Your task to perform on an android device: turn off wifi Image 0: 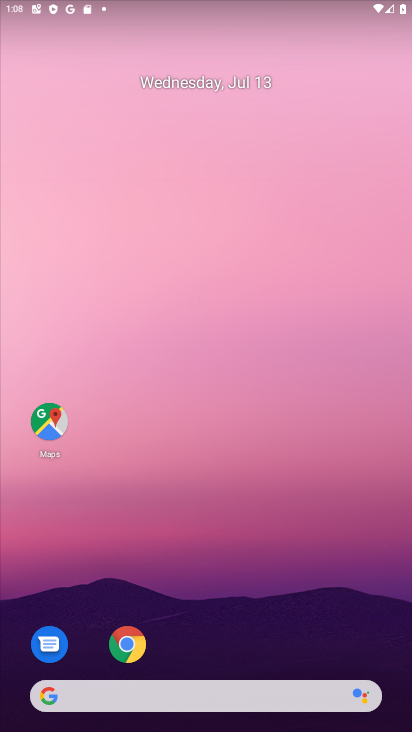
Step 0: drag from (315, 624) to (250, 123)
Your task to perform on an android device: turn off wifi Image 1: 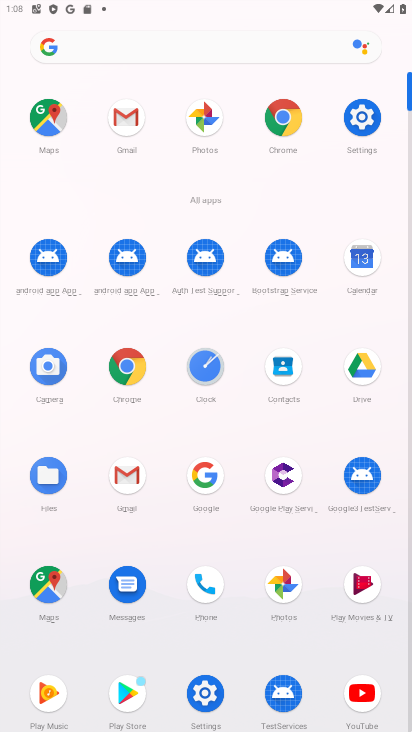
Step 1: click (357, 124)
Your task to perform on an android device: turn off wifi Image 2: 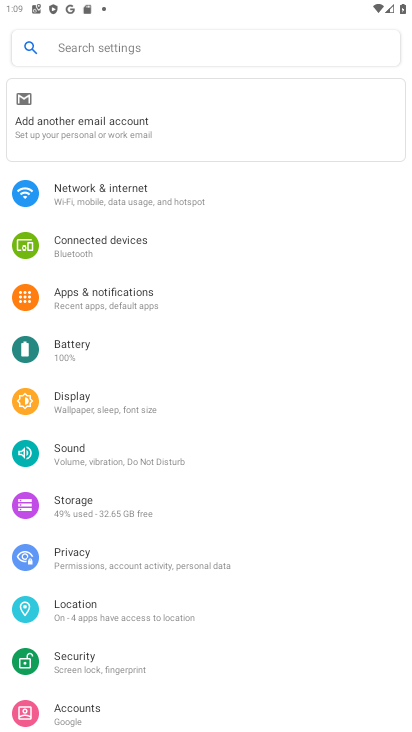
Step 2: click (195, 197)
Your task to perform on an android device: turn off wifi Image 3: 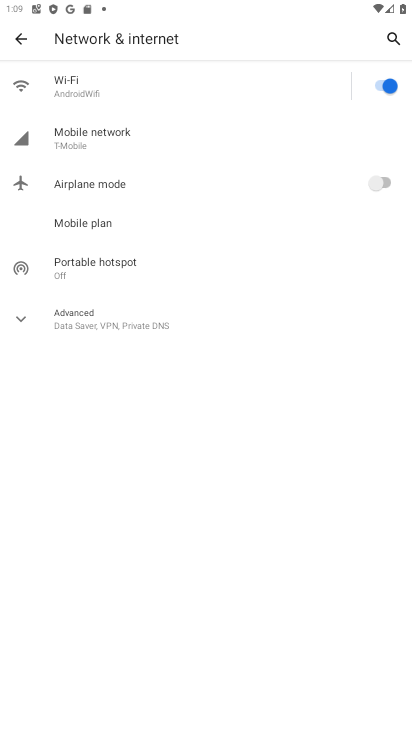
Step 3: click (243, 83)
Your task to perform on an android device: turn off wifi Image 4: 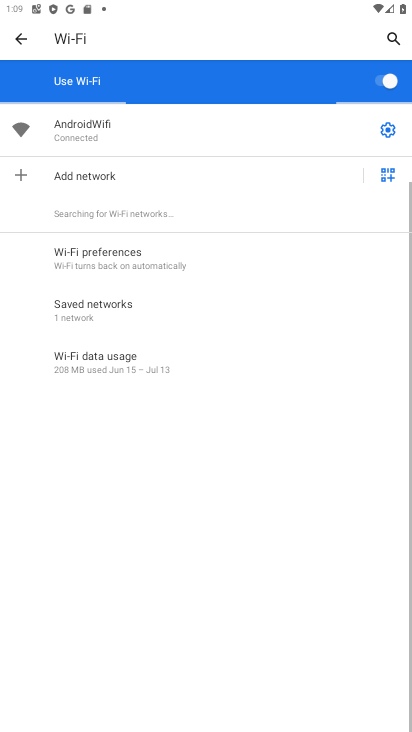
Step 4: click (390, 82)
Your task to perform on an android device: turn off wifi Image 5: 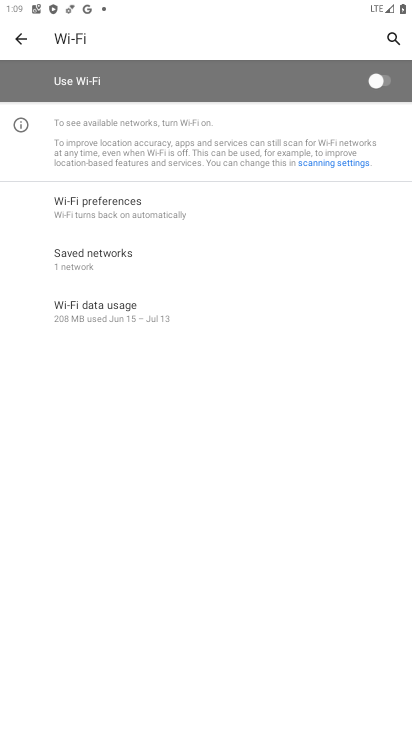
Step 5: task complete